Your task to perform on an android device: Open calendar and show me the second week of next month Image 0: 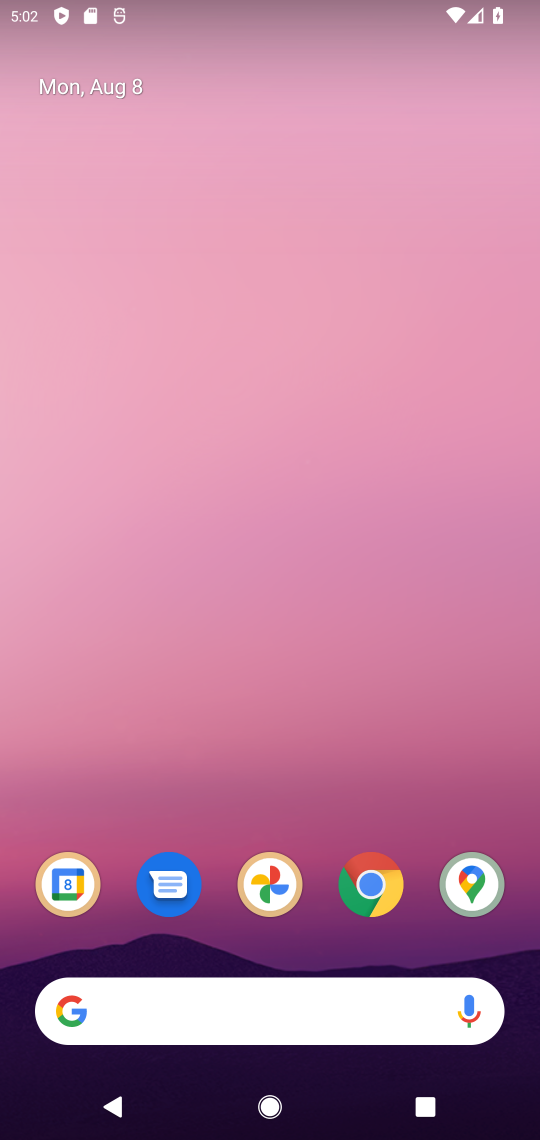
Step 0: drag from (309, 828) to (219, 161)
Your task to perform on an android device: Open calendar and show me the second week of next month Image 1: 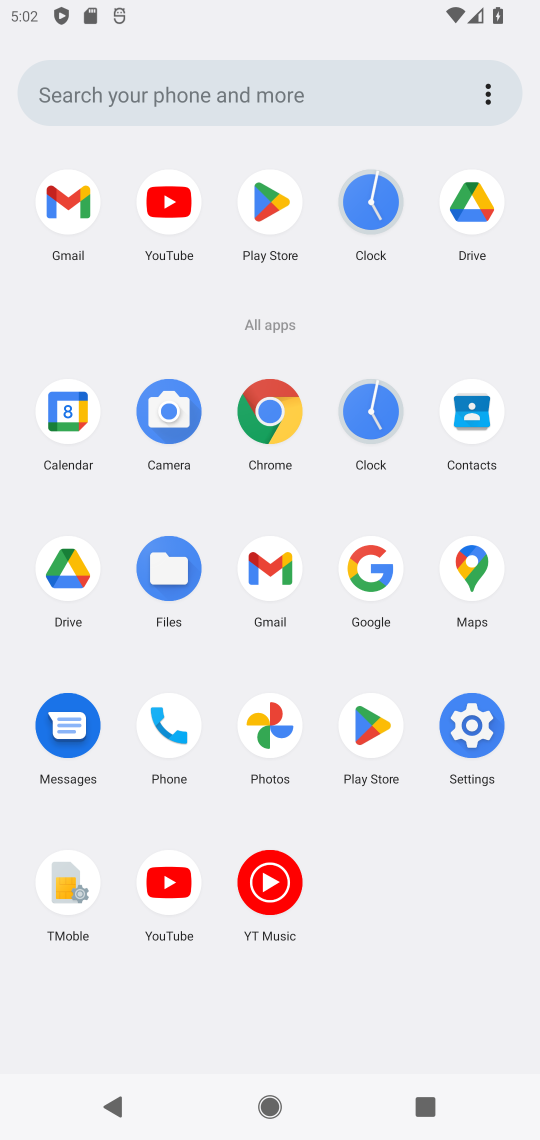
Step 1: click (45, 400)
Your task to perform on an android device: Open calendar and show me the second week of next month Image 2: 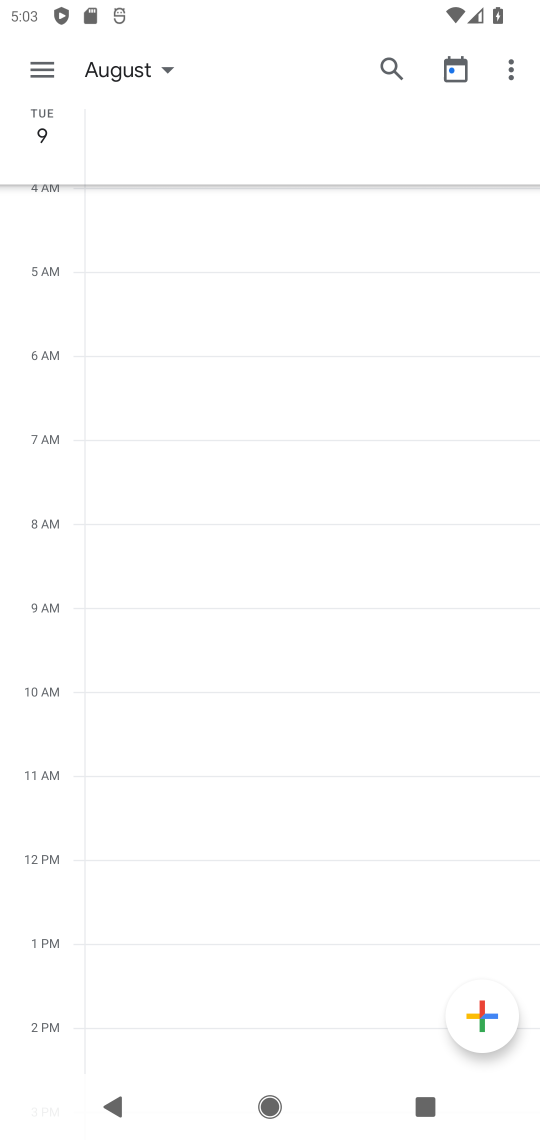
Step 2: click (35, 69)
Your task to perform on an android device: Open calendar and show me the second week of next month Image 3: 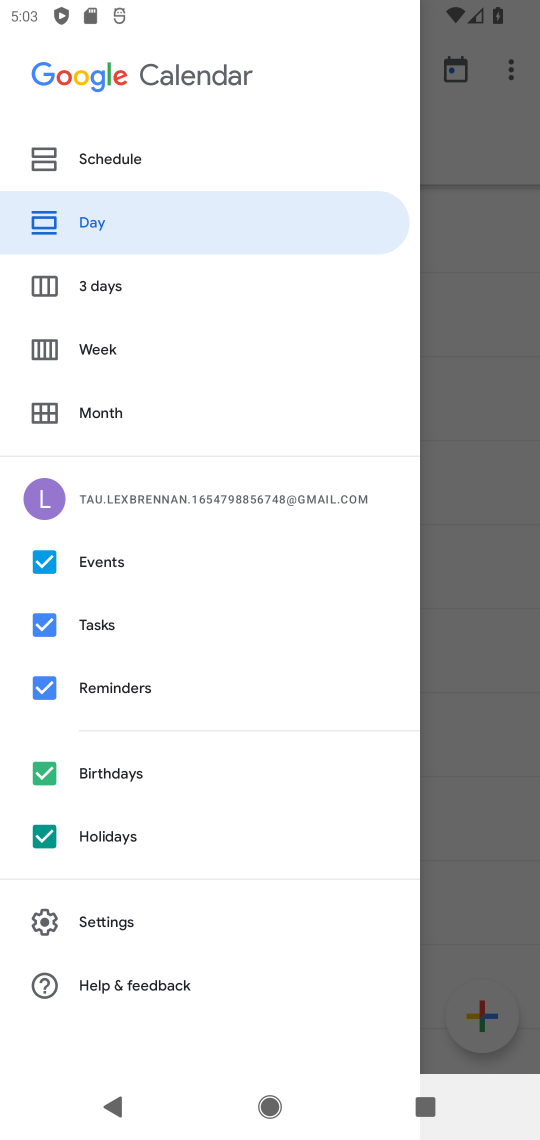
Step 3: click (104, 342)
Your task to perform on an android device: Open calendar and show me the second week of next month Image 4: 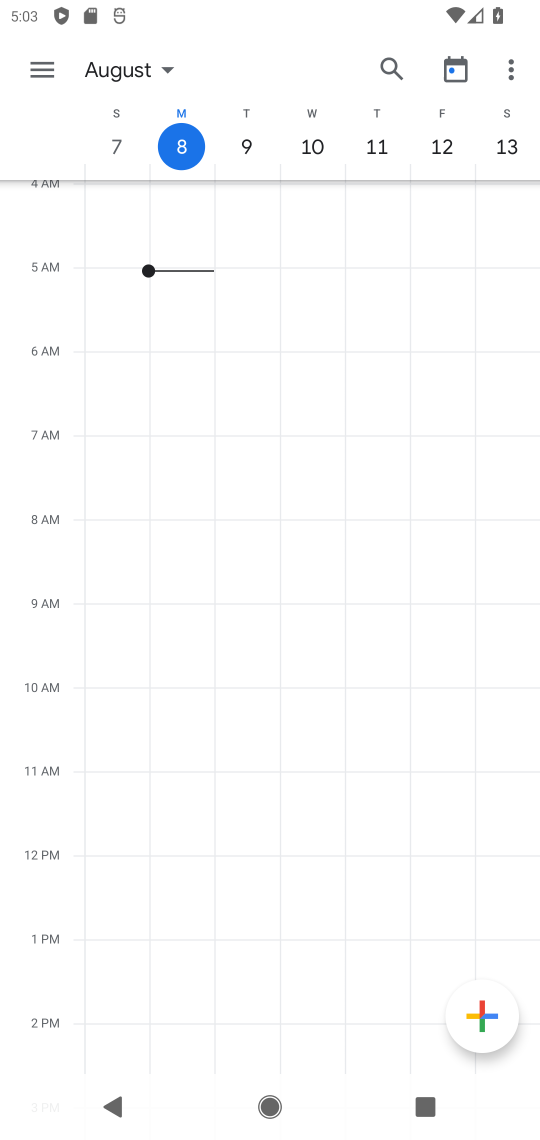
Step 4: click (155, 76)
Your task to perform on an android device: Open calendar and show me the second week of next month Image 5: 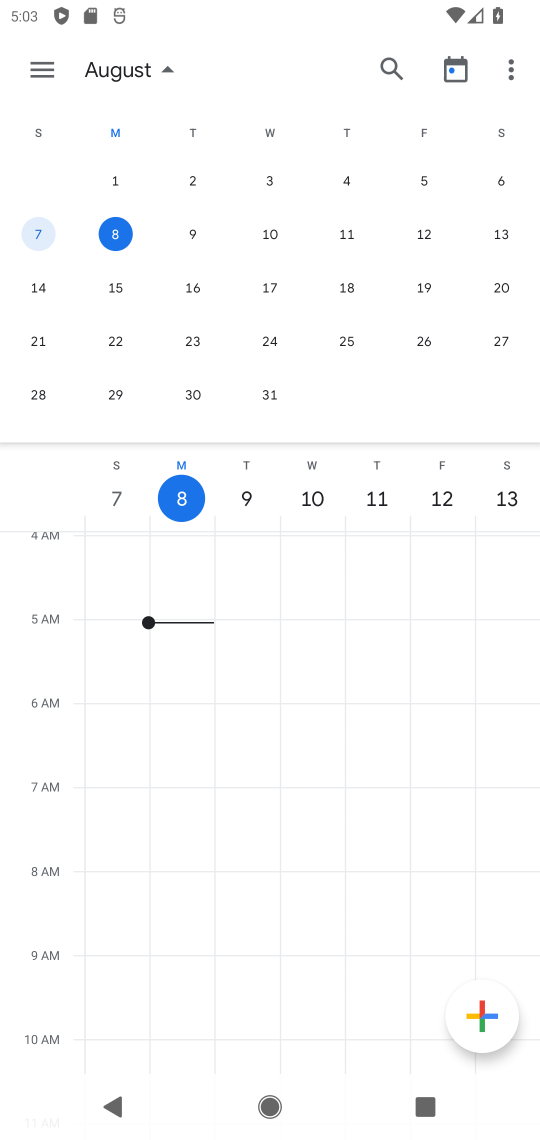
Step 5: drag from (475, 326) to (4, 353)
Your task to perform on an android device: Open calendar and show me the second week of next month Image 6: 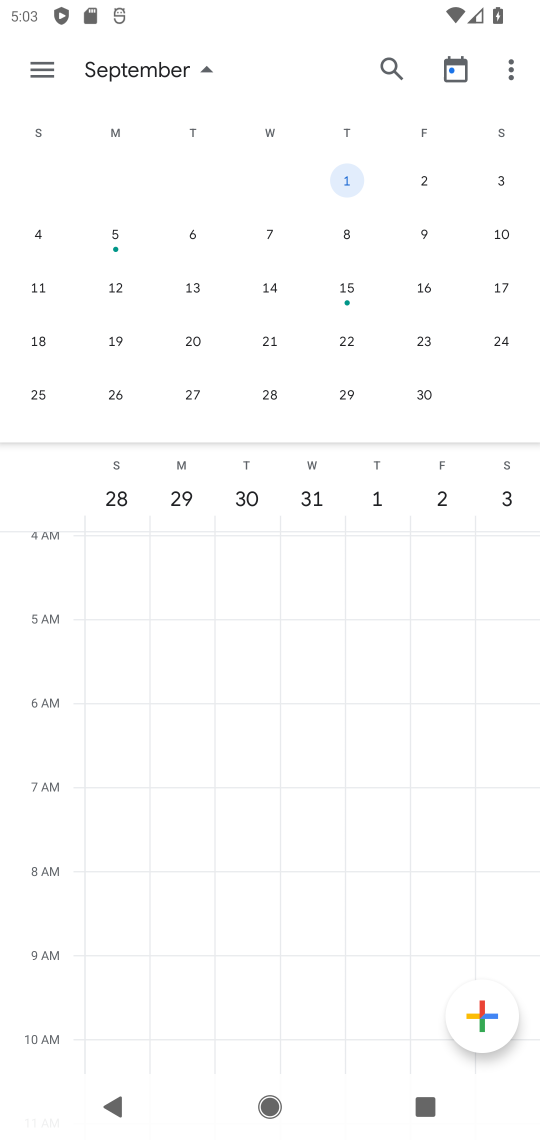
Step 6: click (276, 288)
Your task to perform on an android device: Open calendar and show me the second week of next month Image 7: 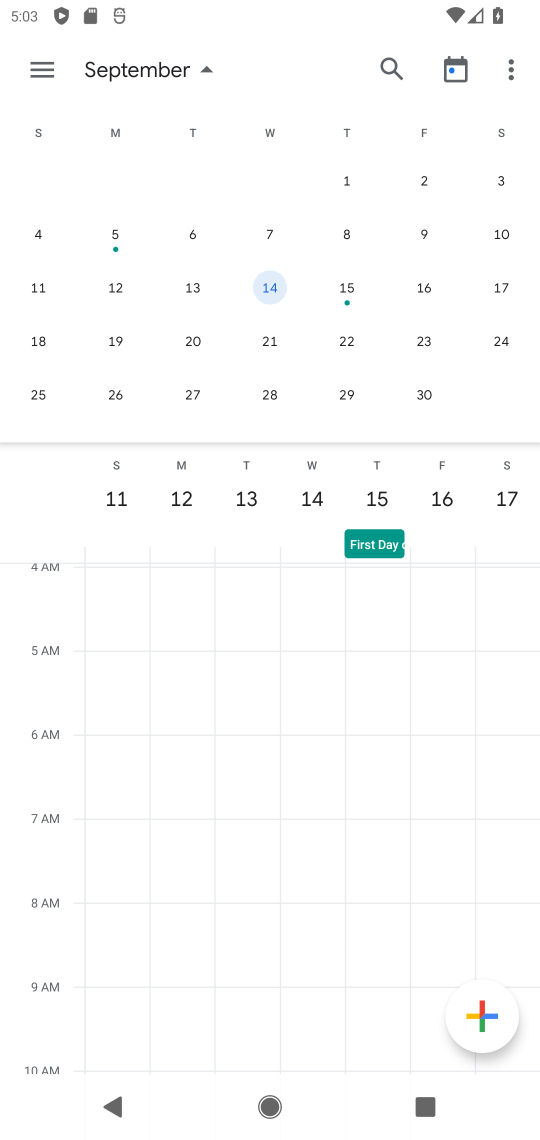
Step 7: task complete